Your task to perform on an android device: Go to calendar. Show me events next week Image 0: 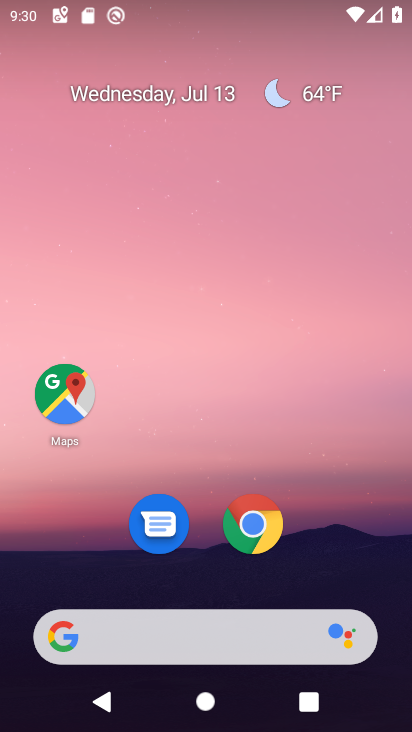
Step 0: drag from (210, 607) to (185, 95)
Your task to perform on an android device: Go to calendar. Show me events next week Image 1: 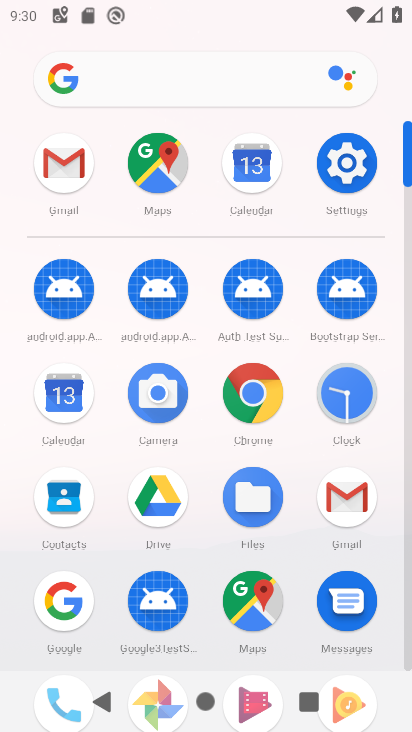
Step 1: click (61, 403)
Your task to perform on an android device: Go to calendar. Show me events next week Image 2: 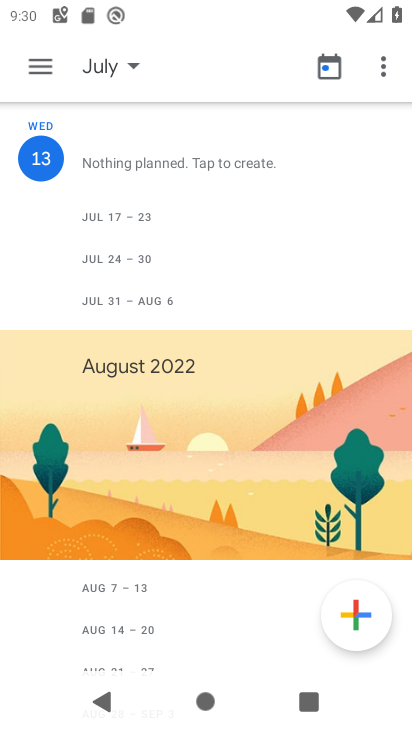
Step 2: click (28, 74)
Your task to perform on an android device: Go to calendar. Show me events next week Image 3: 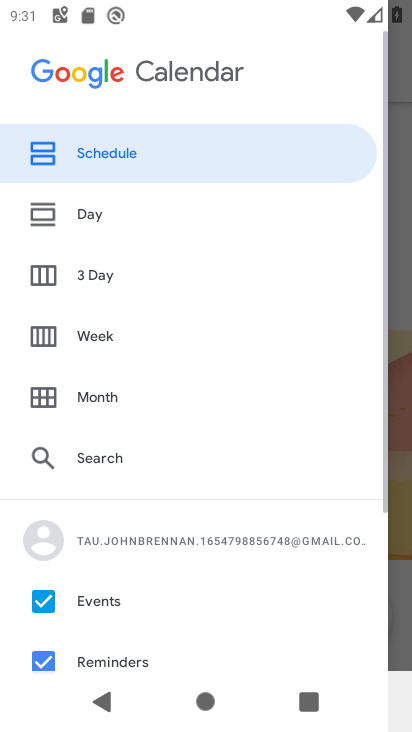
Step 3: click (101, 319)
Your task to perform on an android device: Go to calendar. Show me events next week Image 4: 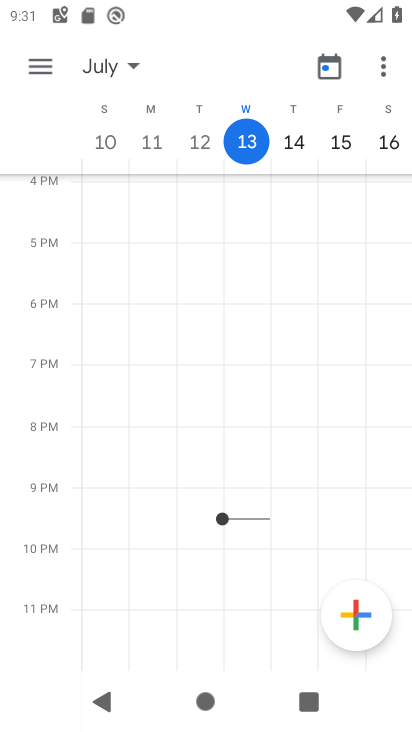
Step 4: task complete